Your task to perform on an android device: toggle translation in the chrome app Image 0: 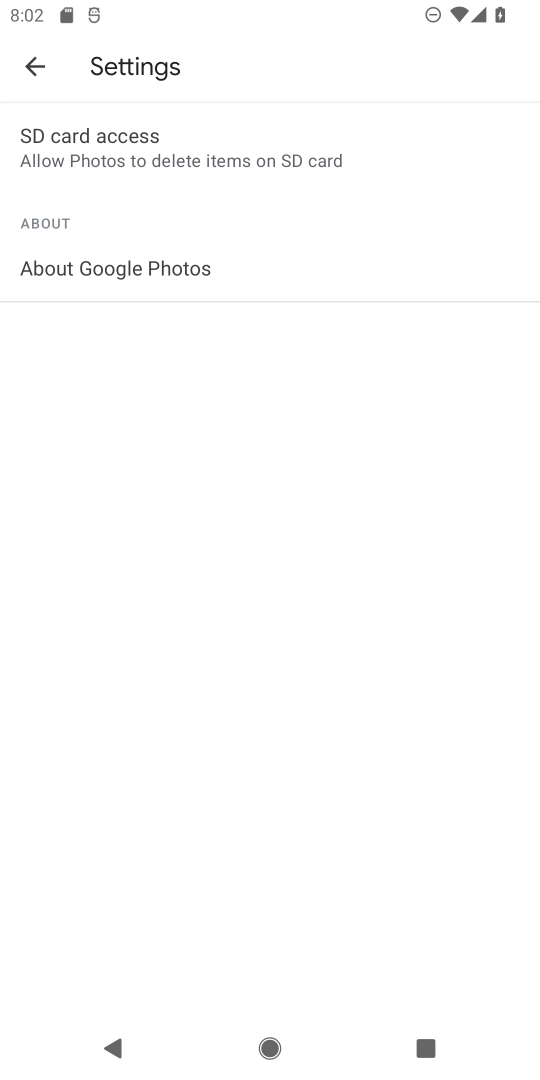
Step 0: press home button
Your task to perform on an android device: toggle translation in the chrome app Image 1: 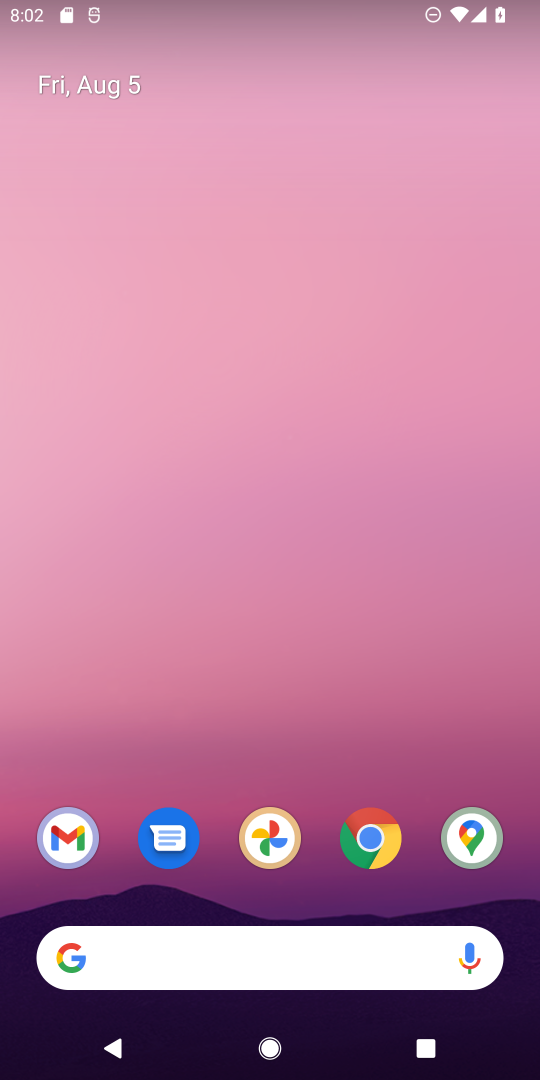
Step 1: drag from (235, 923) to (321, 238)
Your task to perform on an android device: toggle translation in the chrome app Image 2: 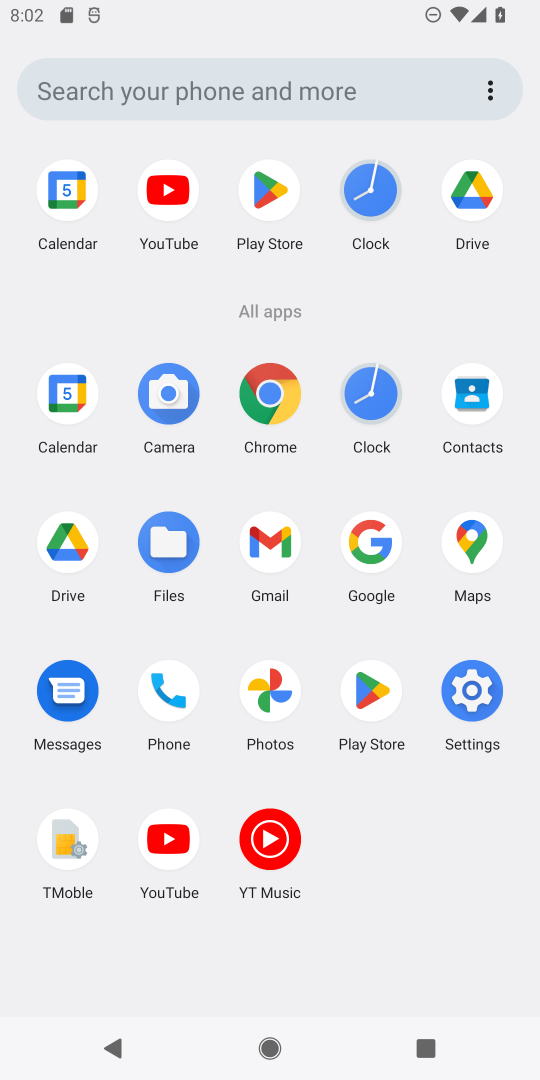
Step 2: click (270, 403)
Your task to perform on an android device: toggle translation in the chrome app Image 3: 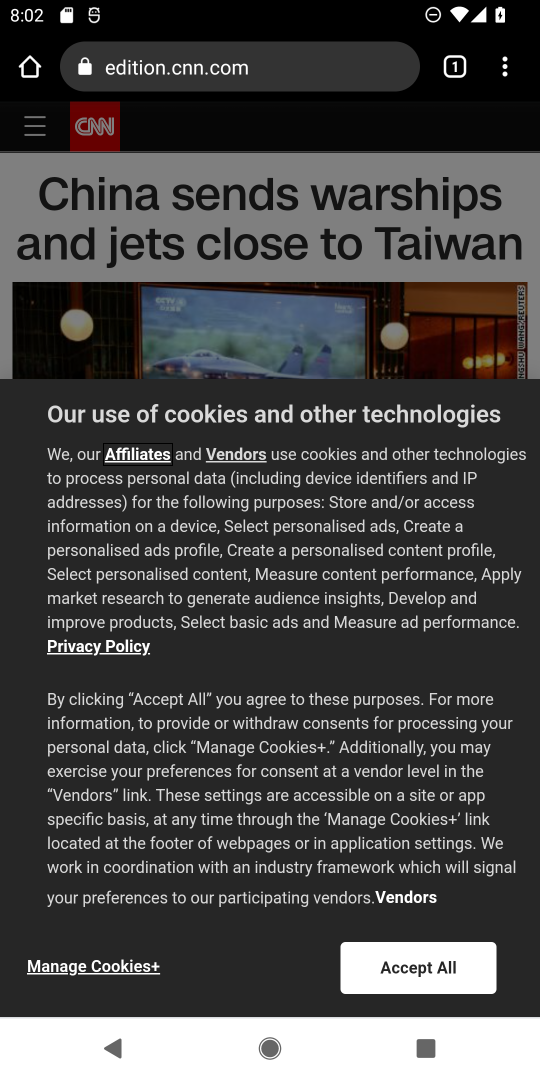
Step 3: click (512, 66)
Your task to perform on an android device: toggle translation in the chrome app Image 4: 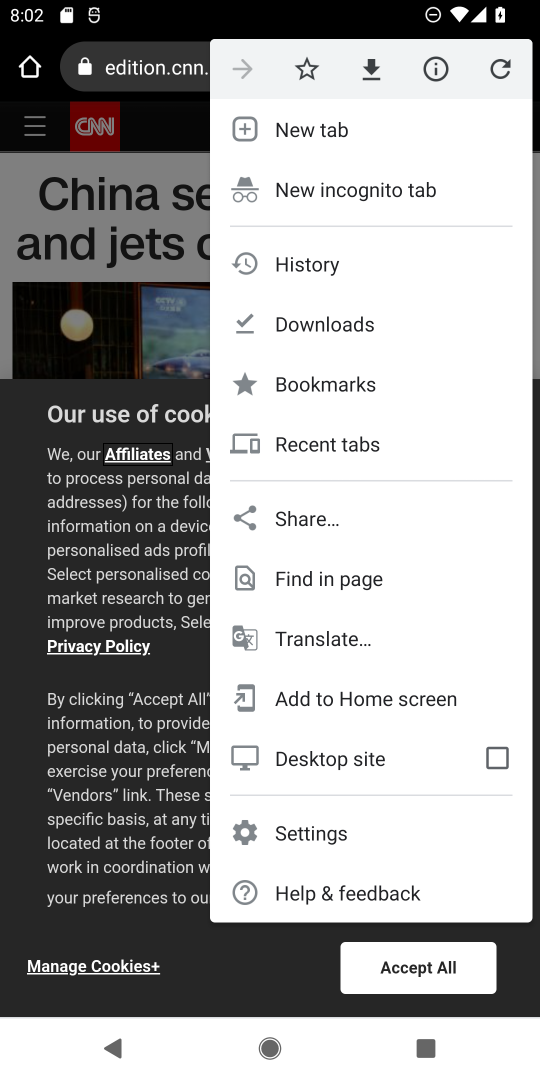
Step 4: click (330, 830)
Your task to perform on an android device: toggle translation in the chrome app Image 5: 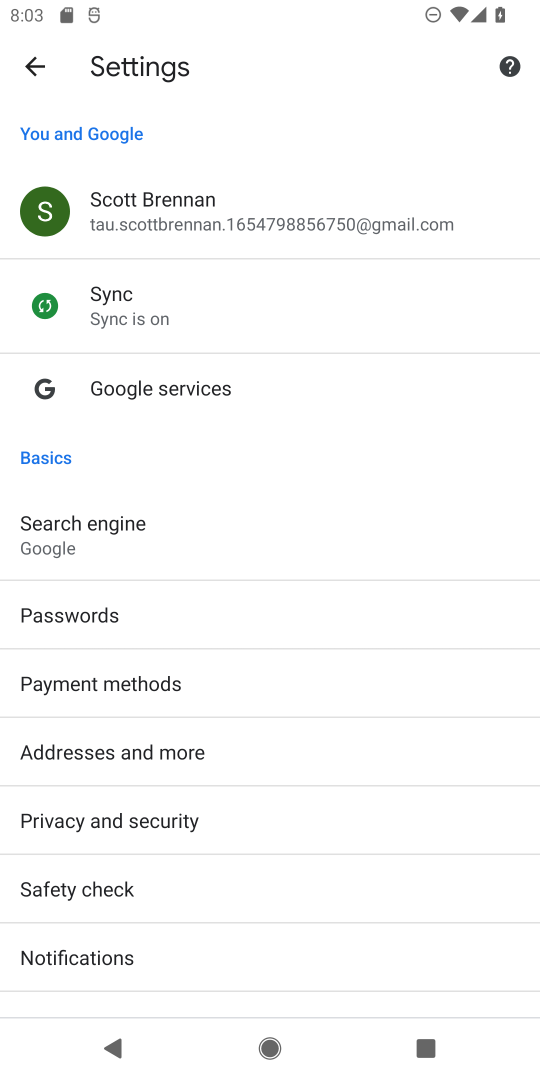
Step 5: drag from (74, 924) to (124, 412)
Your task to perform on an android device: toggle translation in the chrome app Image 6: 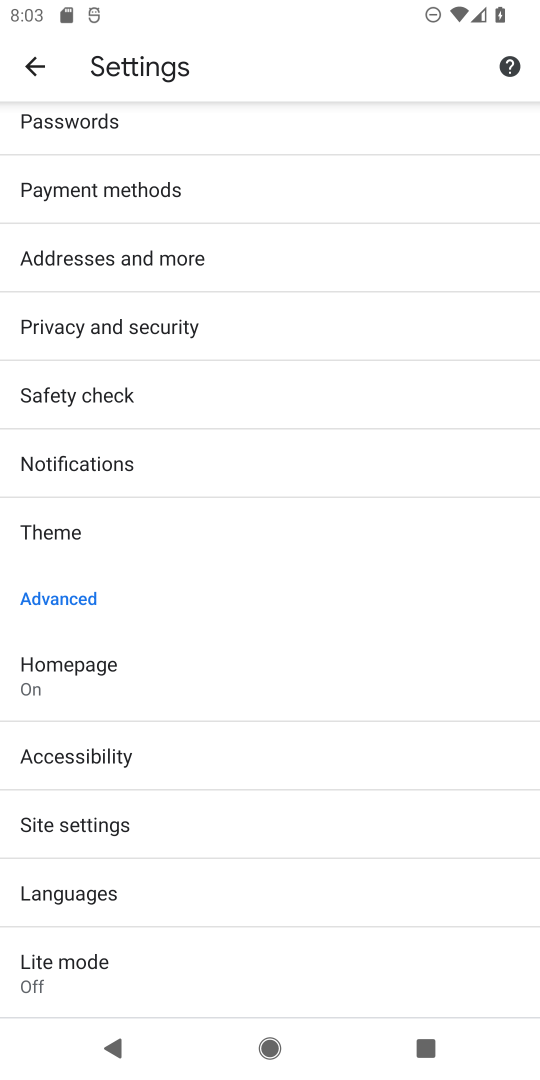
Step 6: click (72, 900)
Your task to perform on an android device: toggle translation in the chrome app Image 7: 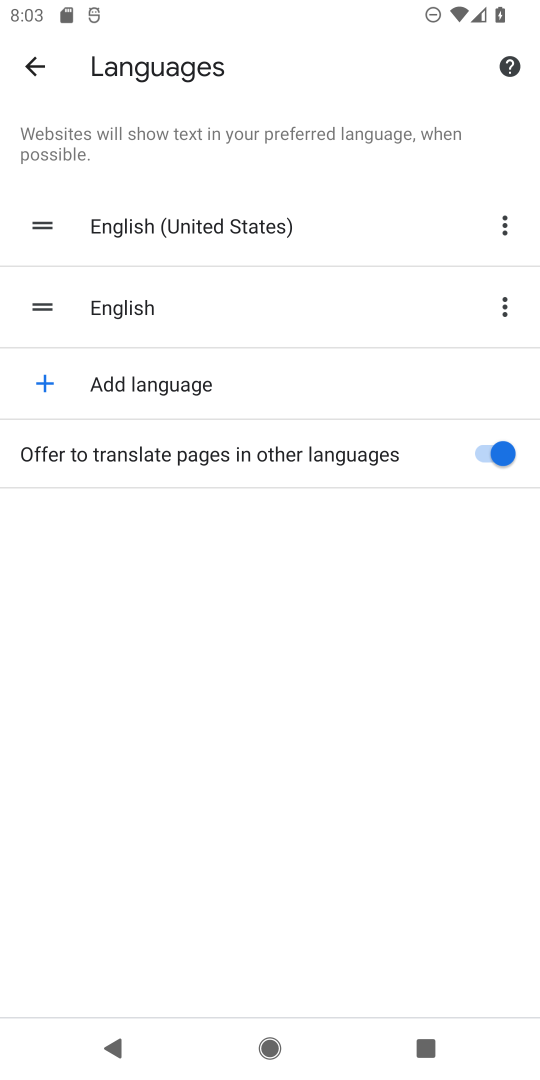
Step 7: click (487, 453)
Your task to perform on an android device: toggle translation in the chrome app Image 8: 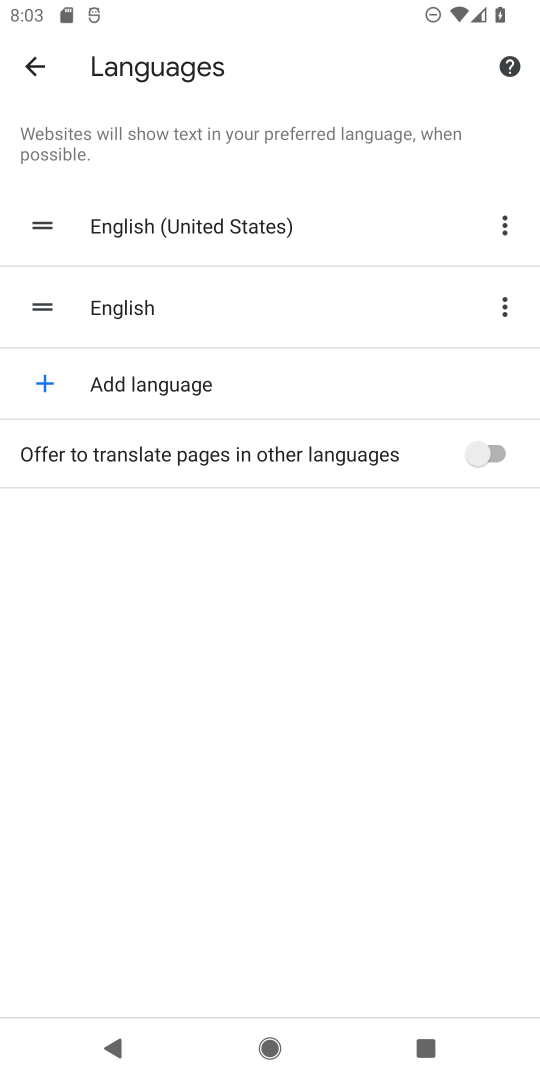
Step 8: task complete